Your task to perform on an android device: turn on data saver in the chrome app Image 0: 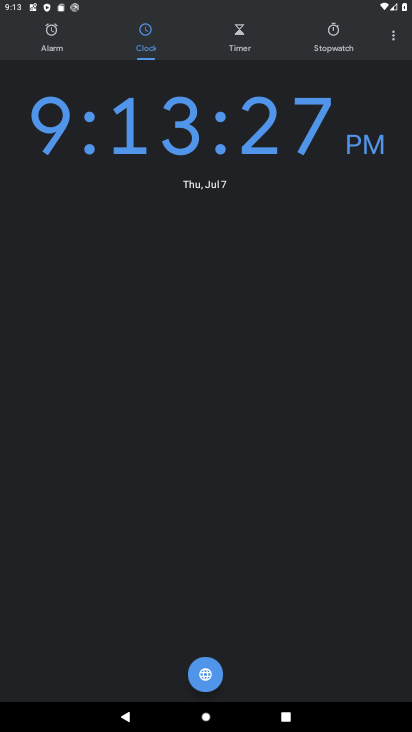
Step 0: press home button
Your task to perform on an android device: turn on data saver in the chrome app Image 1: 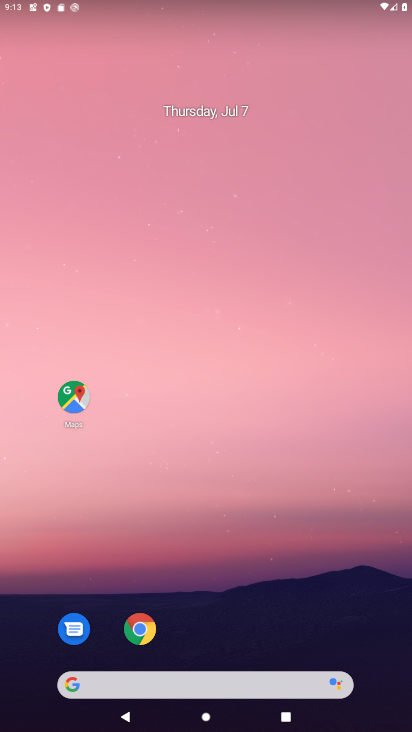
Step 1: click (144, 626)
Your task to perform on an android device: turn on data saver in the chrome app Image 2: 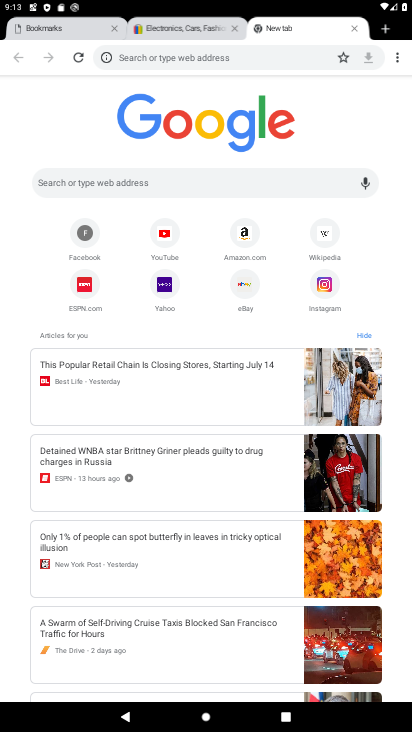
Step 2: click (398, 59)
Your task to perform on an android device: turn on data saver in the chrome app Image 3: 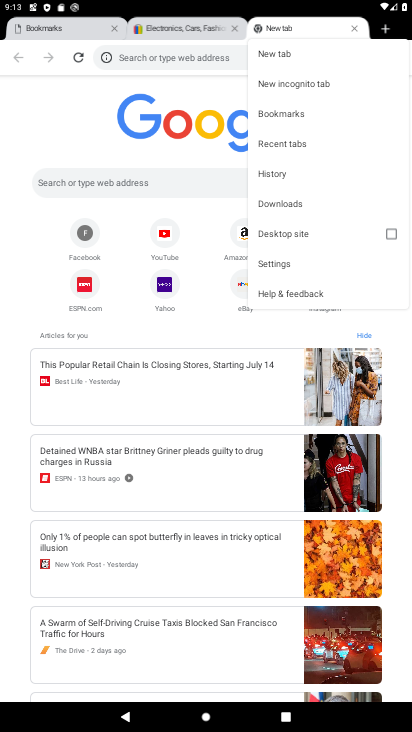
Step 3: click (288, 261)
Your task to perform on an android device: turn on data saver in the chrome app Image 4: 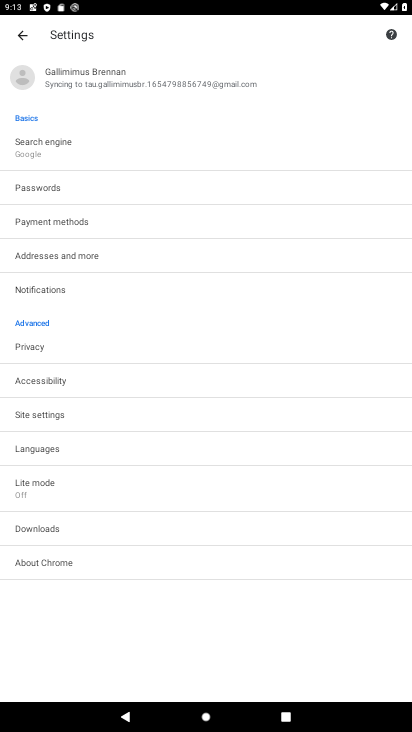
Step 4: click (36, 482)
Your task to perform on an android device: turn on data saver in the chrome app Image 5: 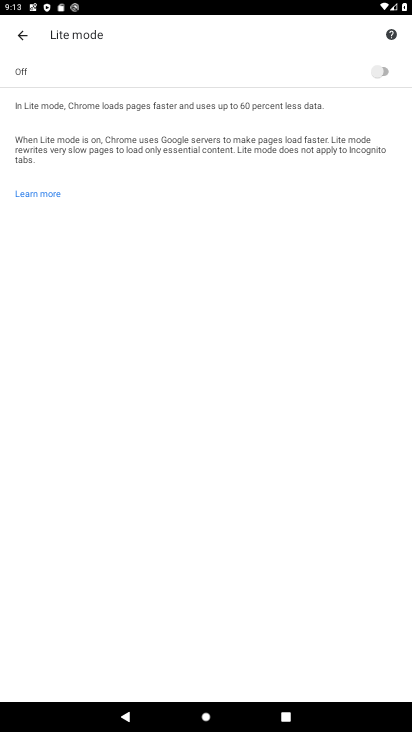
Step 5: click (379, 66)
Your task to perform on an android device: turn on data saver in the chrome app Image 6: 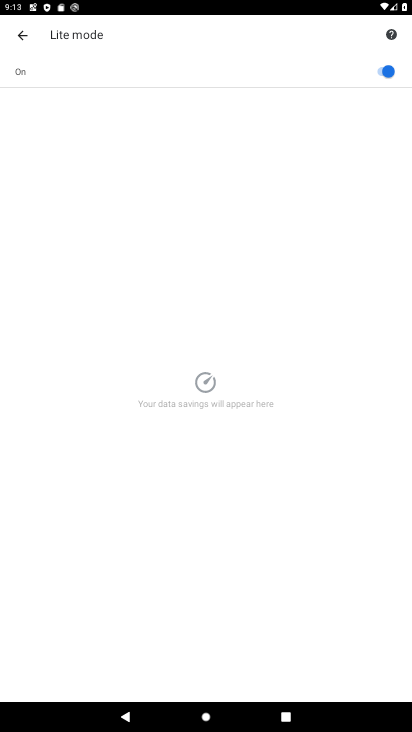
Step 6: task complete